Your task to perform on an android device: turn off javascript in the chrome app Image 0: 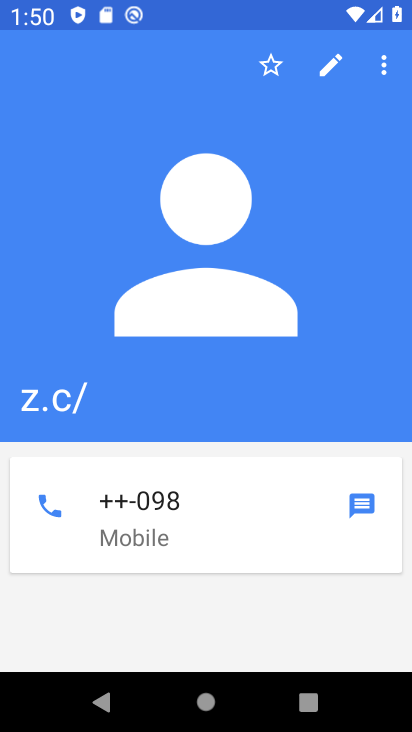
Step 0: press home button
Your task to perform on an android device: turn off javascript in the chrome app Image 1: 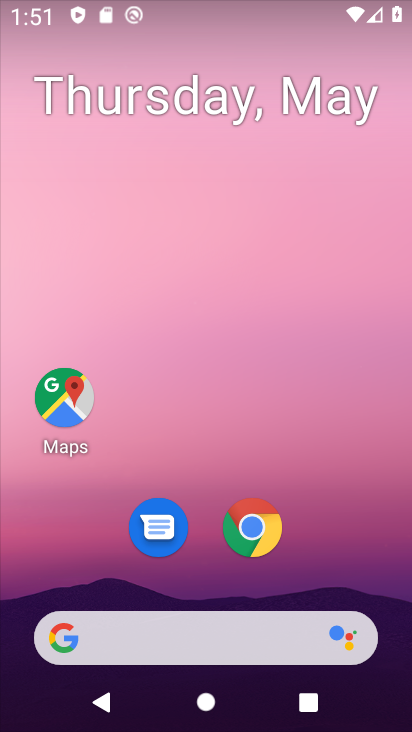
Step 1: click (244, 562)
Your task to perform on an android device: turn off javascript in the chrome app Image 2: 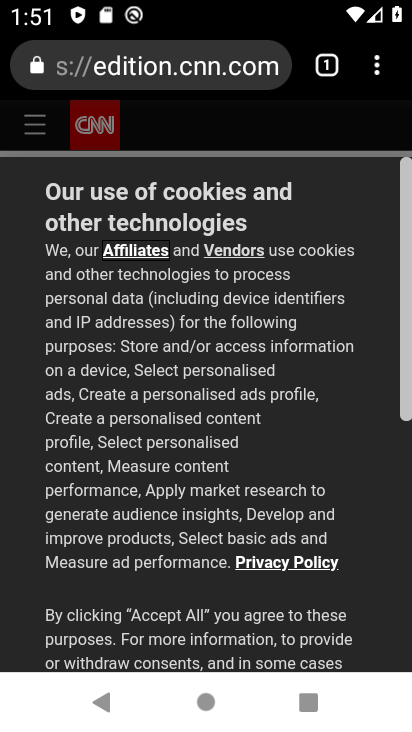
Step 2: drag from (371, 58) to (209, 591)
Your task to perform on an android device: turn off javascript in the chrome app Image 3: 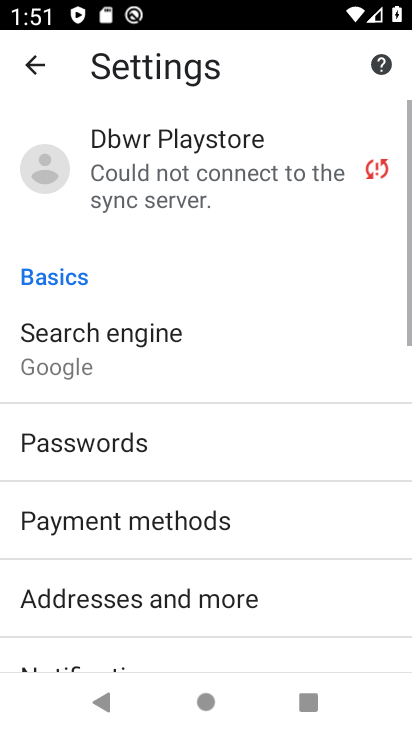
Step 3: drag from (209, 591) to (207, 98)
Your task to perform on an android device: turn off javascript in the chrome app Image 4: 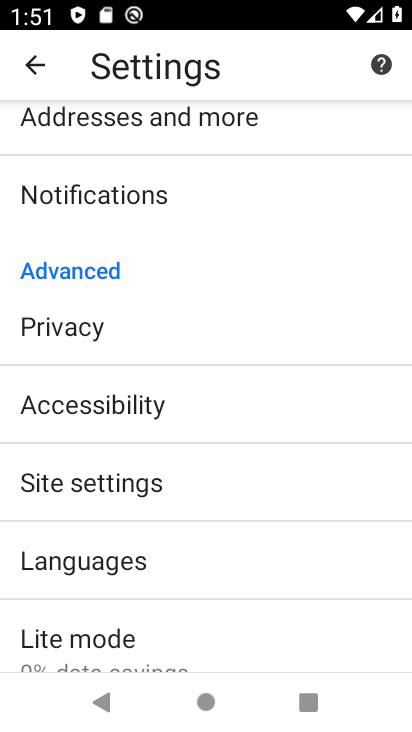
Step 4: drag from (179, 427) to (172, 340)
Your task to perform on an android device: turn off javascript in the chrome app Image 5: 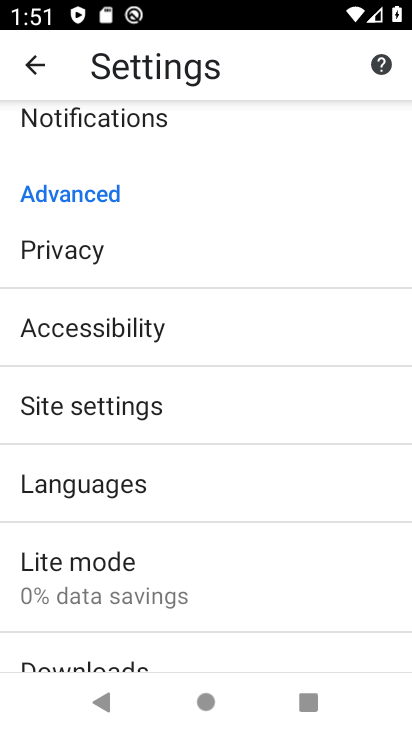
Step 5: click (187, 412)
Your task to perform on an android device: turn off javascript in the chrome app Image 6: 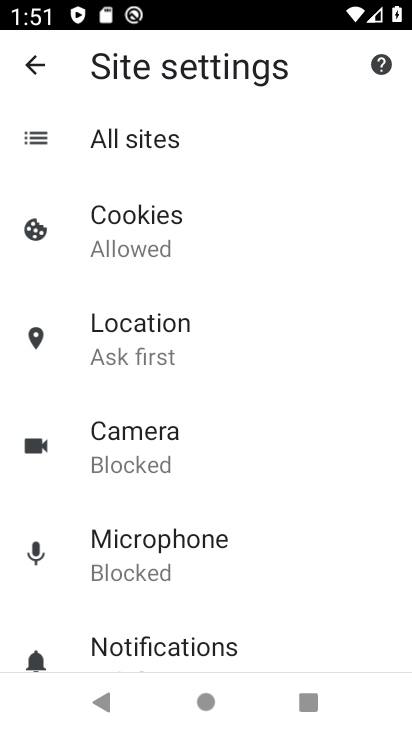
Step 6: drag from (252, 624) to (250, 178)
Your task to perform on an android device: turn off javascript in the chrome app Image 7: 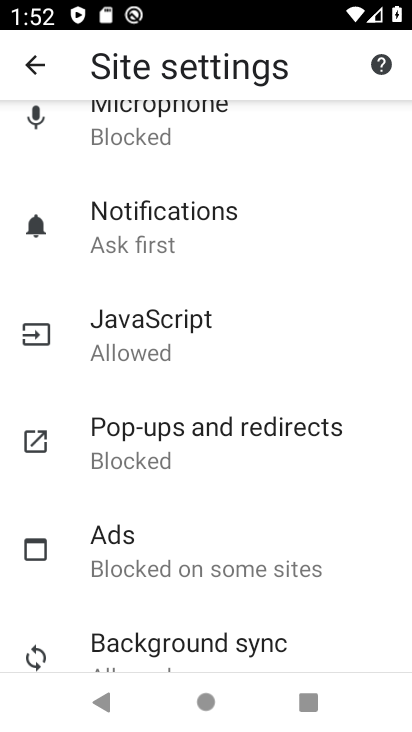
Step 7: click (175, 321)
Your task to perform on an android device: turn off javascript in the chrome app Image 8: 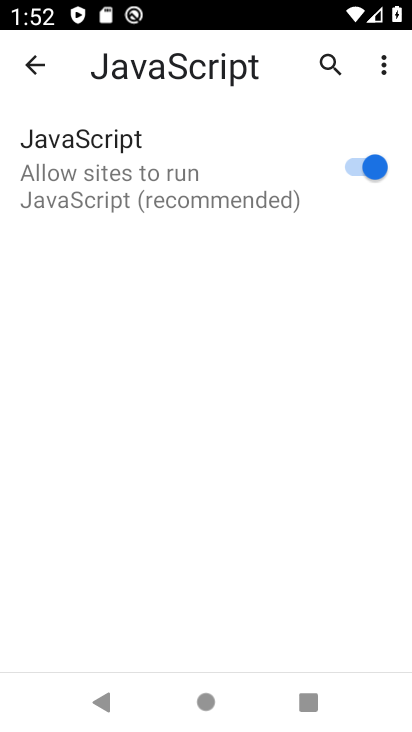
Step 8: click (296, 188)
Your task to perform on an android device: turn off javascript in the chrome app Image 9: 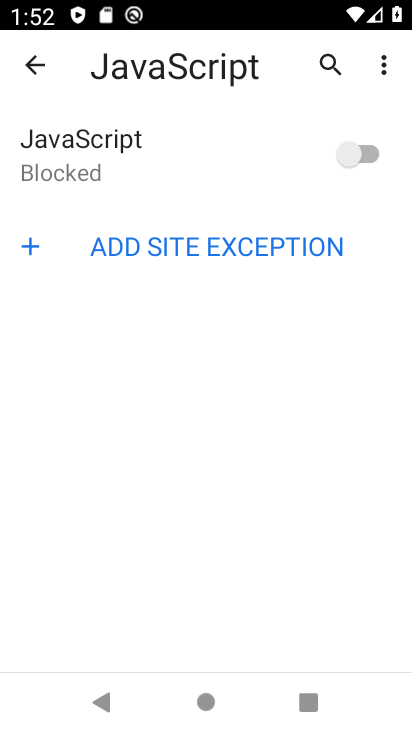
Step 9: task complete